Your task to perform on an android device: empty trash in google photos Image 0: 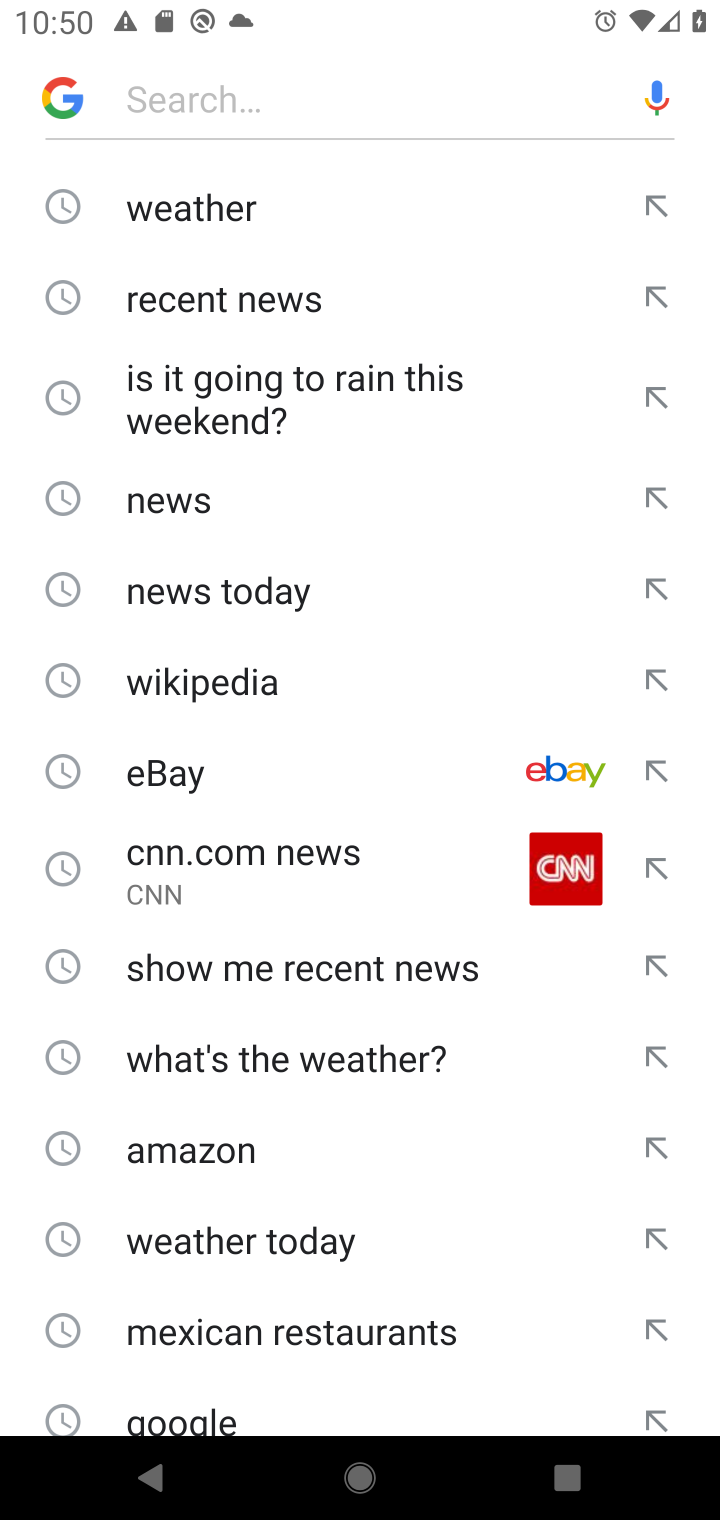
Step 0: press home button
Your task to perform on an android device: empty trash in google photos Image 1: 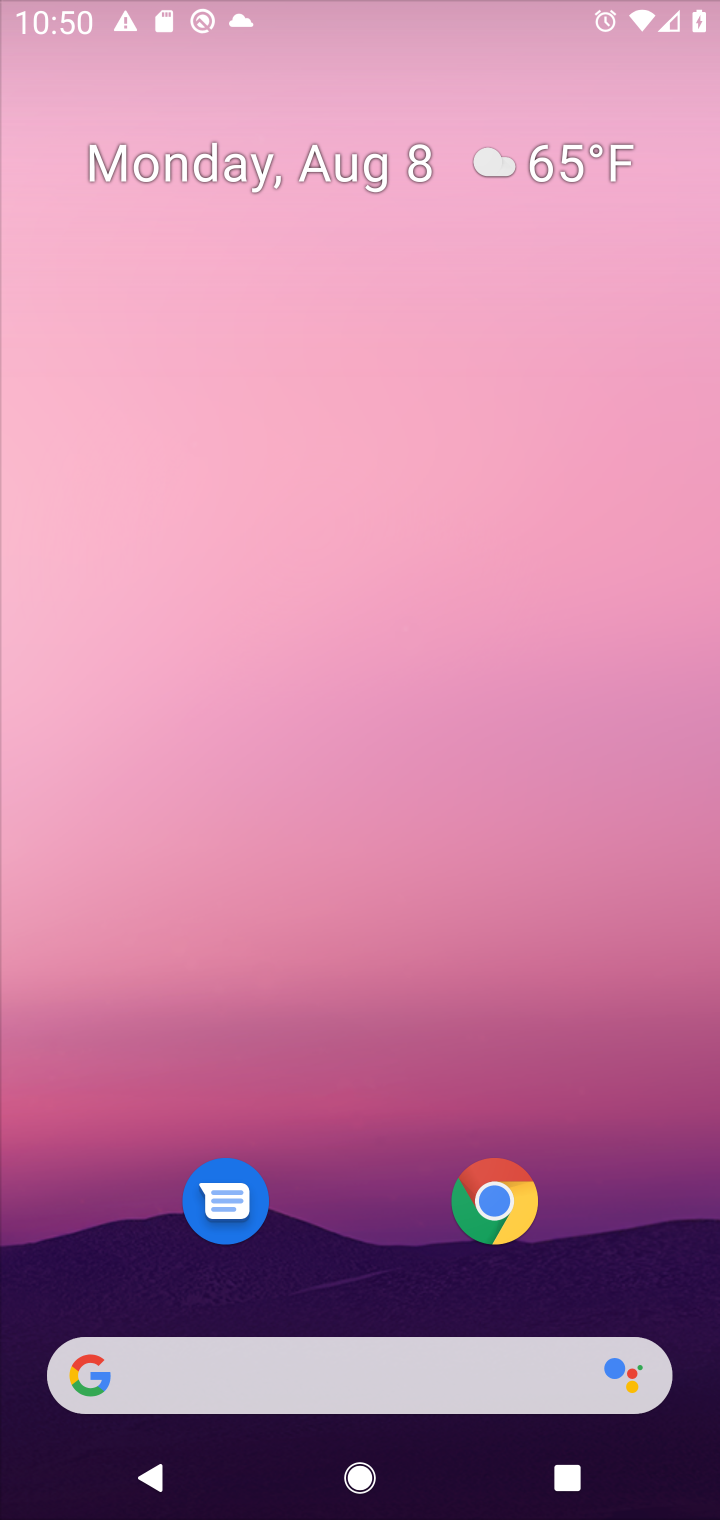
Step 1: press home button
Your task to perform on an android device: empty trash in google photos Image 2: 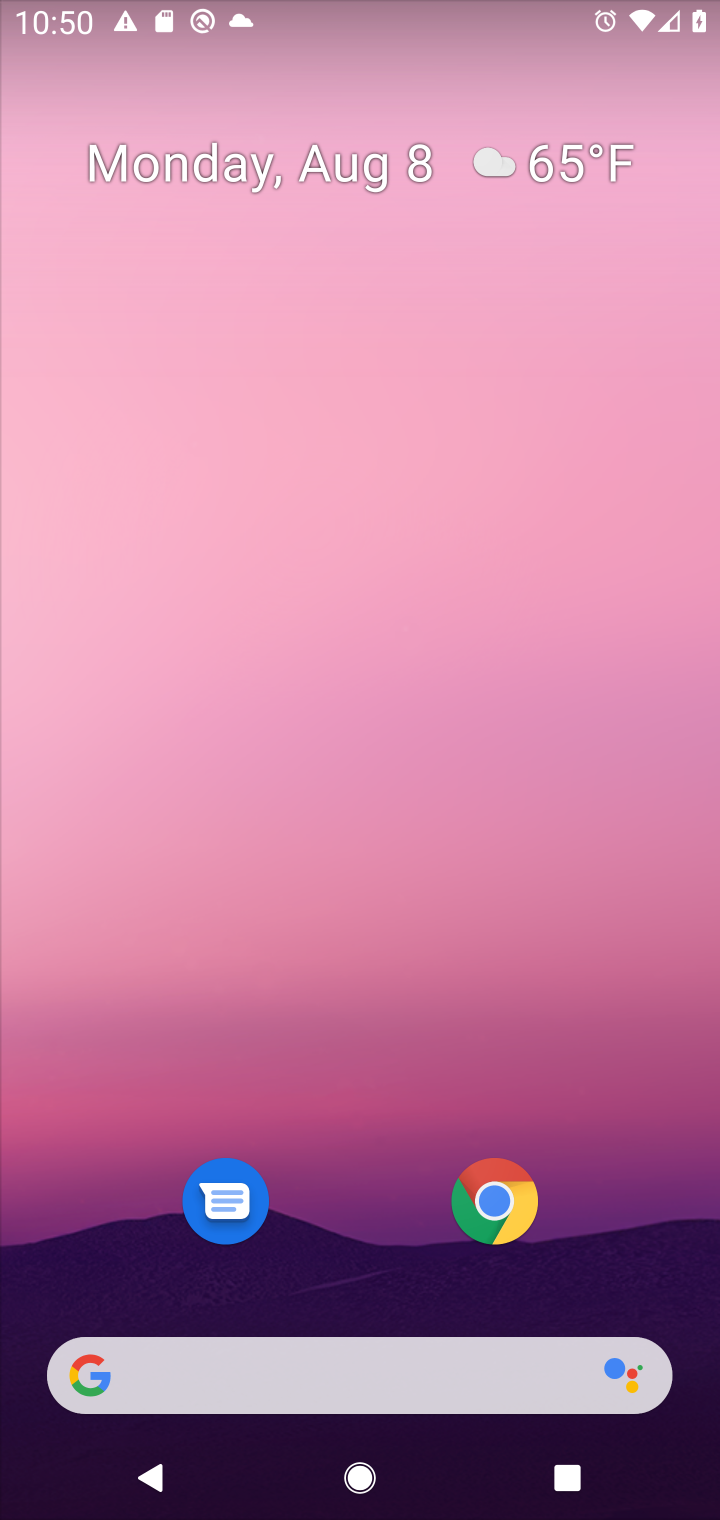
Step 2: drag from (403, 1143) to (438, 315)
Your task to perform on an android device: empty trash in google photos Image 3: 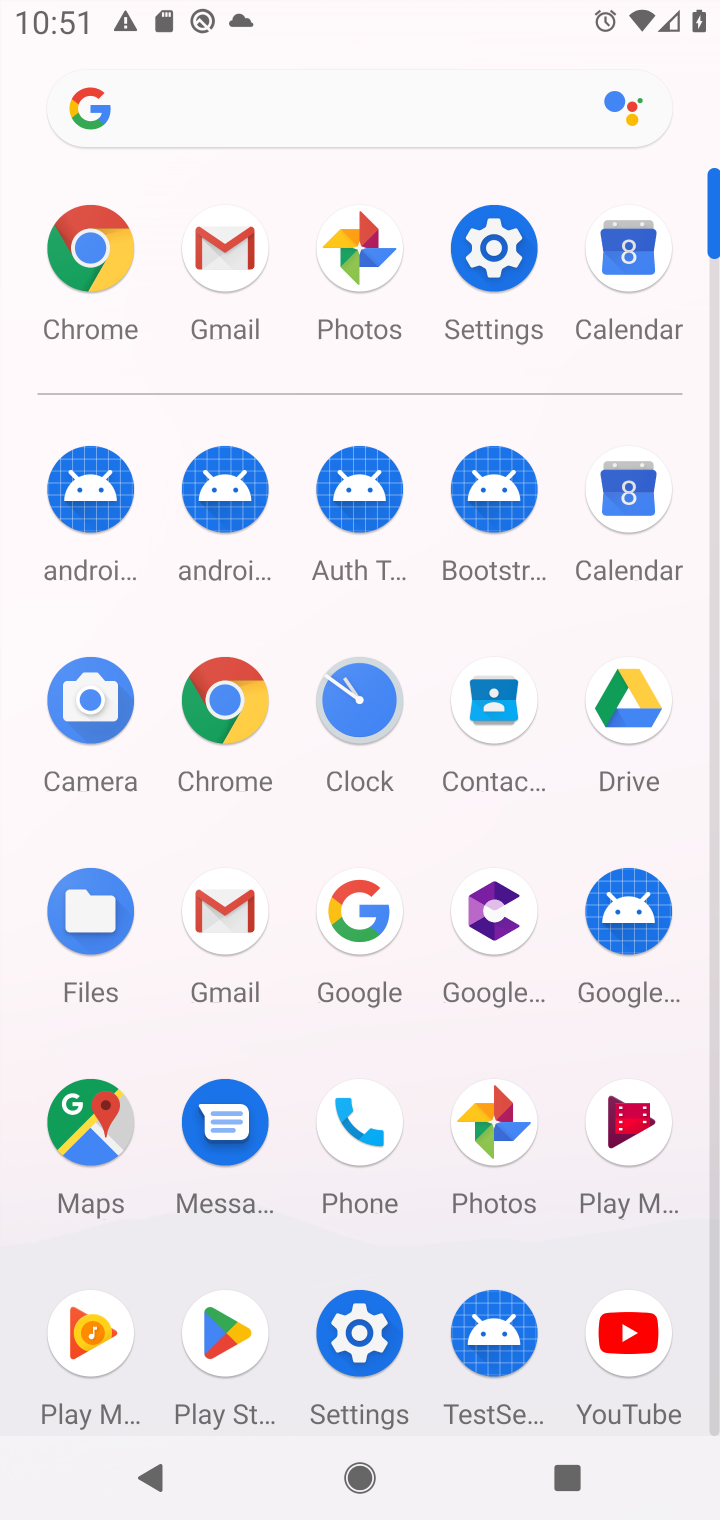
Step 3: click (485, 1130)
Your task to perform on an android device: empty trash in google photos Image 4: 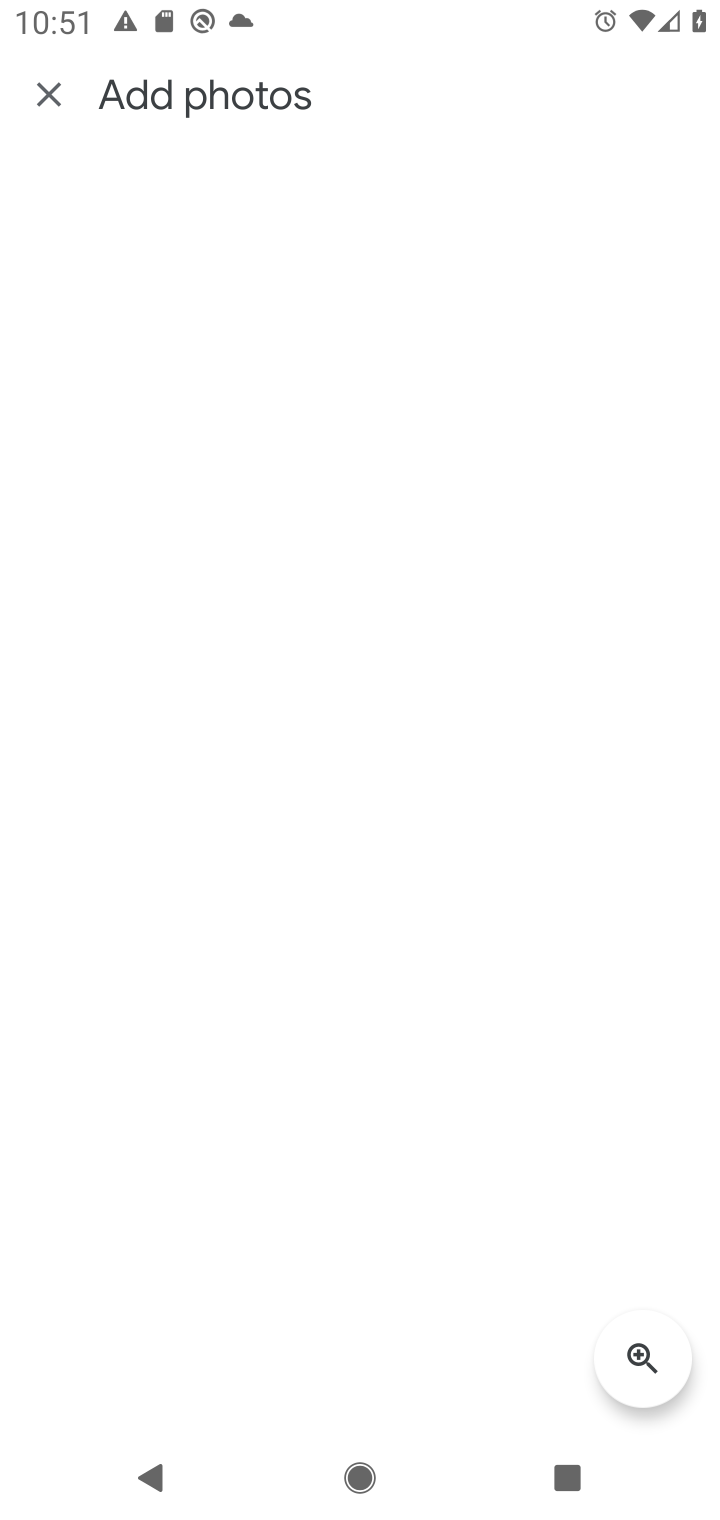
Step 4: press back button
Your task to perform on an android device: empty trash in google photos Image 5: 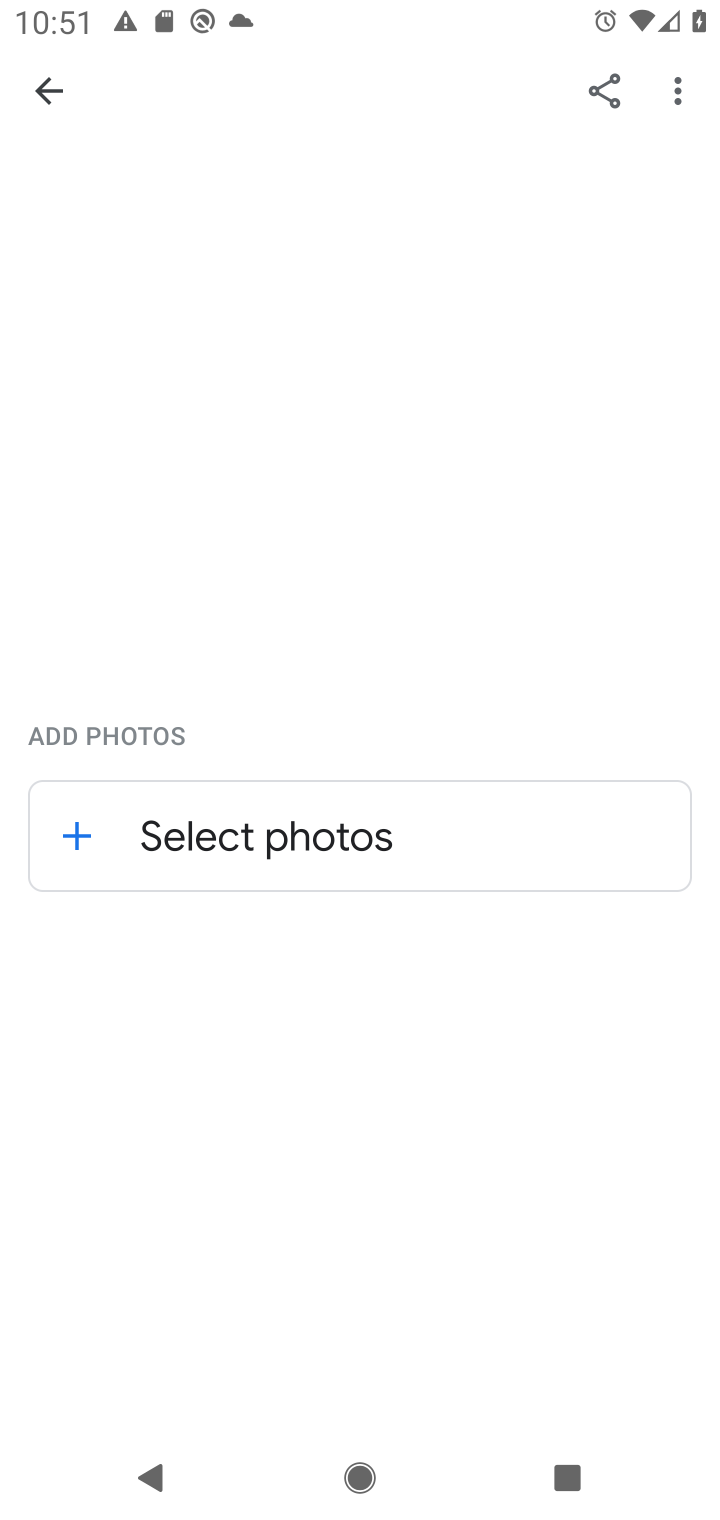
Step 5: press back button
Your task to perform on an android device: empty trash in google photos Image 6: 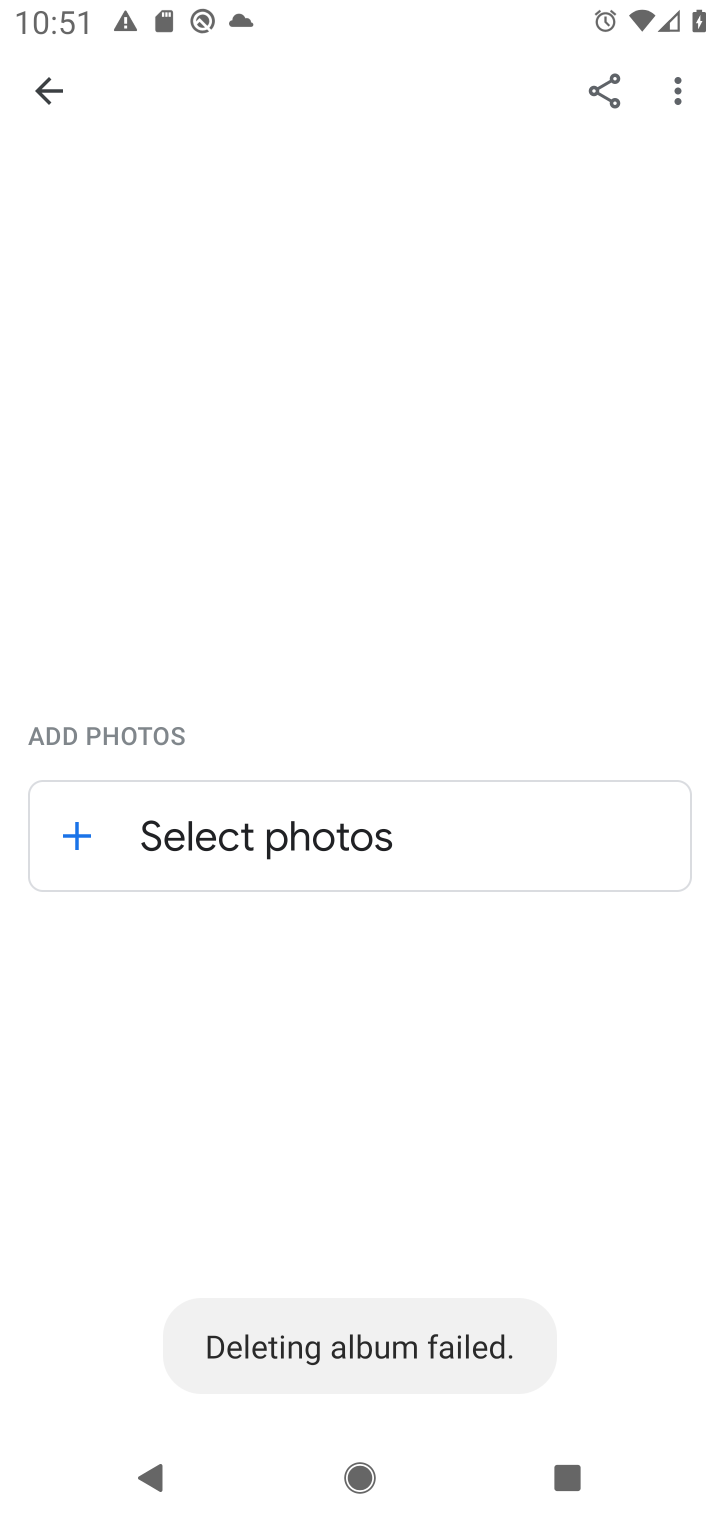
Step 6: press back button
Your task to perform on an android device: empty trash in google photos Image 7: 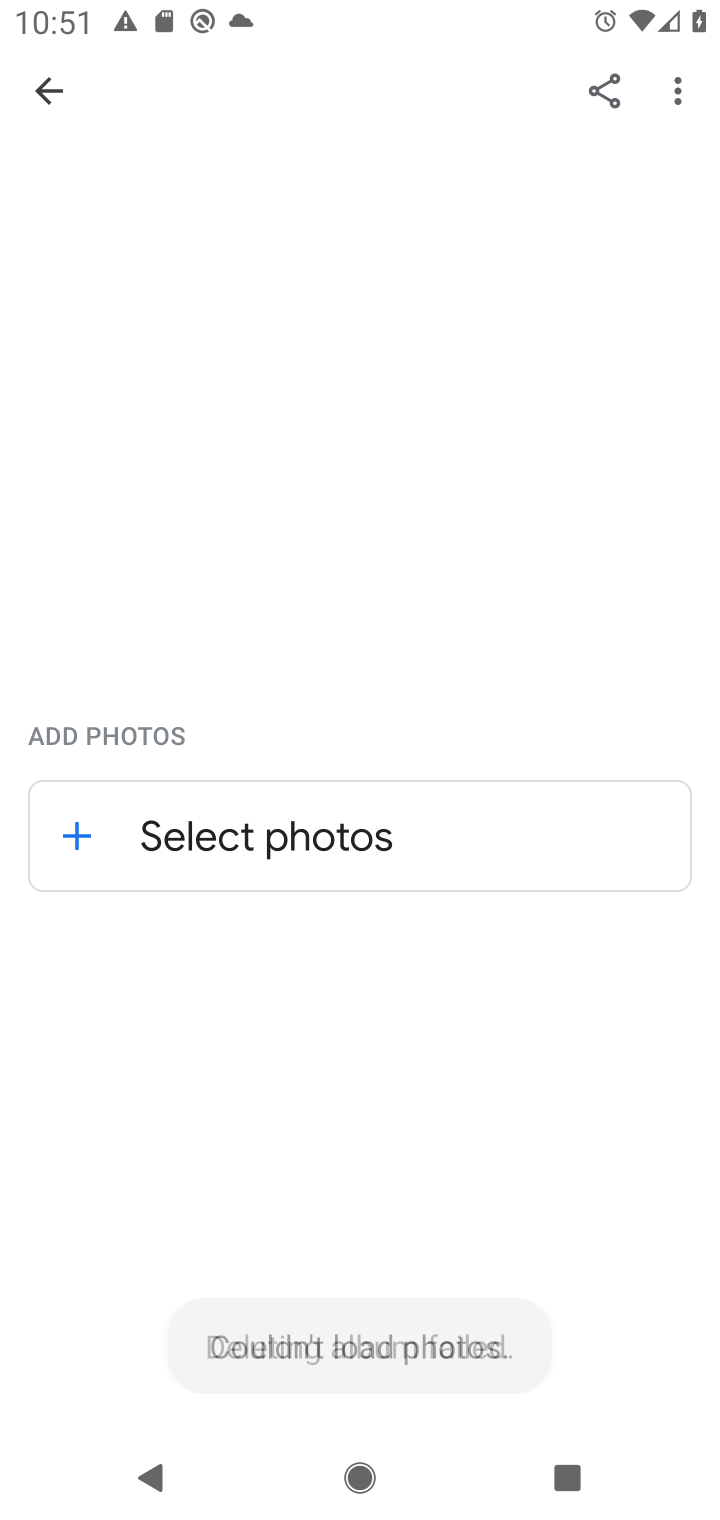
Step 7: press back button
Your task to perform on an android device: empty trash in google photos Image 8: 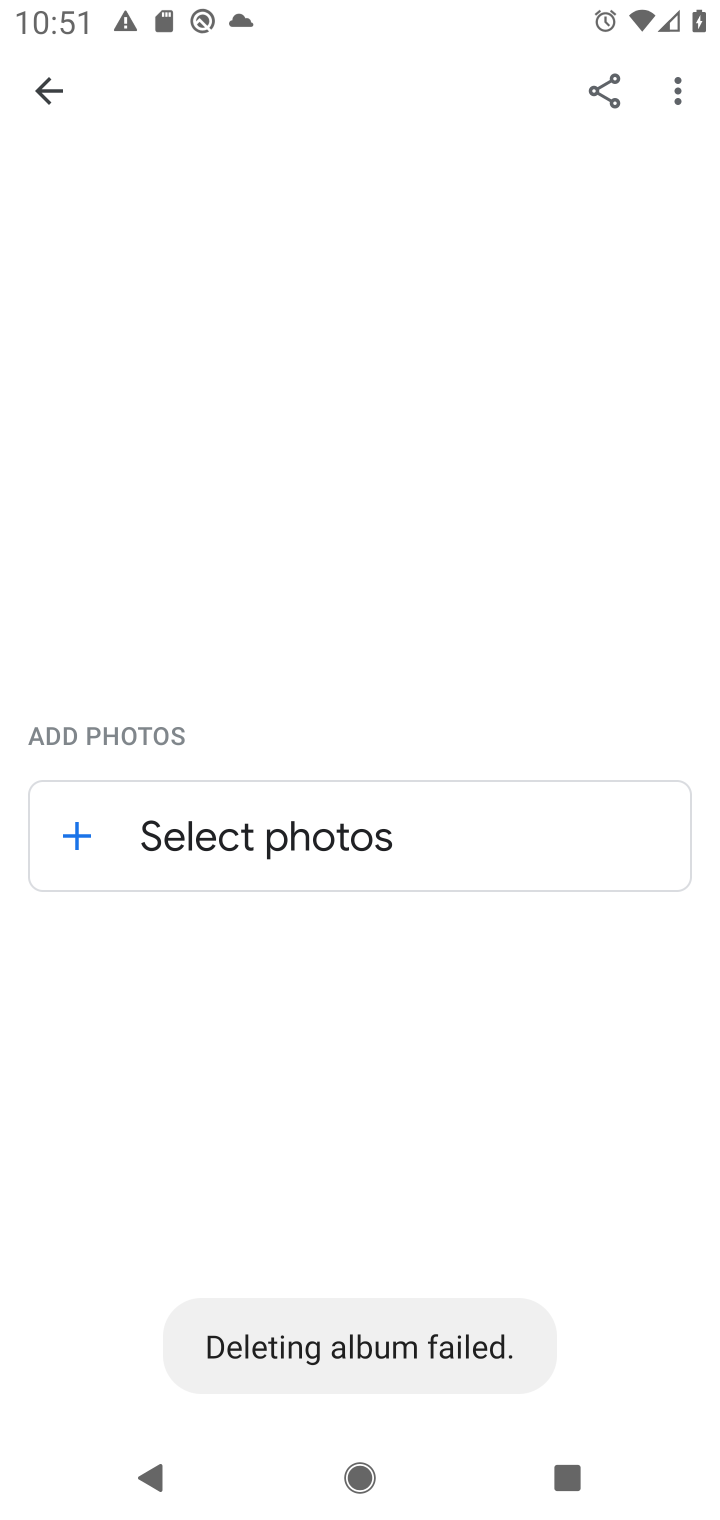
Step 8: press back button
Your task to perform on an android device: empty trash in google photos Image 9: 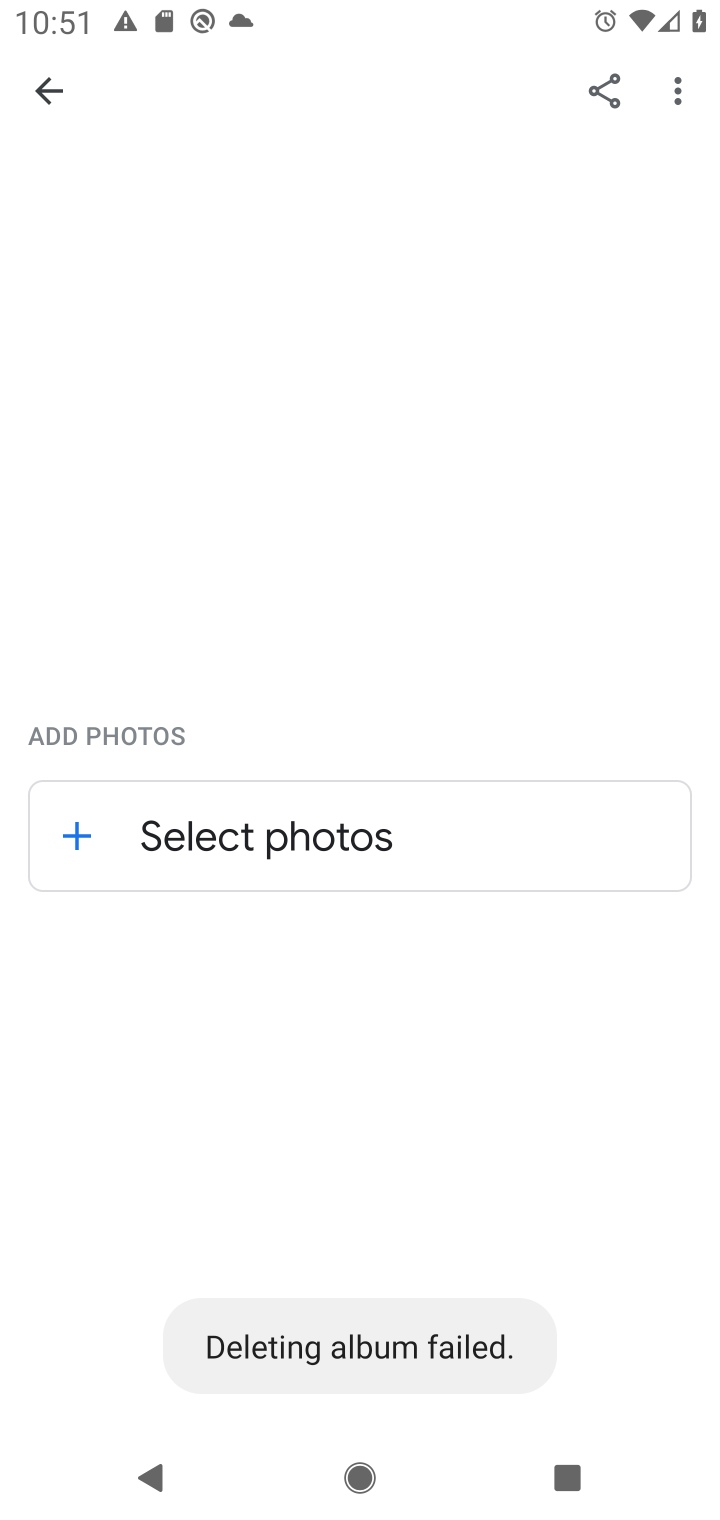
Step 9: click (47, 86)
Your task to perform on an android device: empty trash in google photos Image 10: 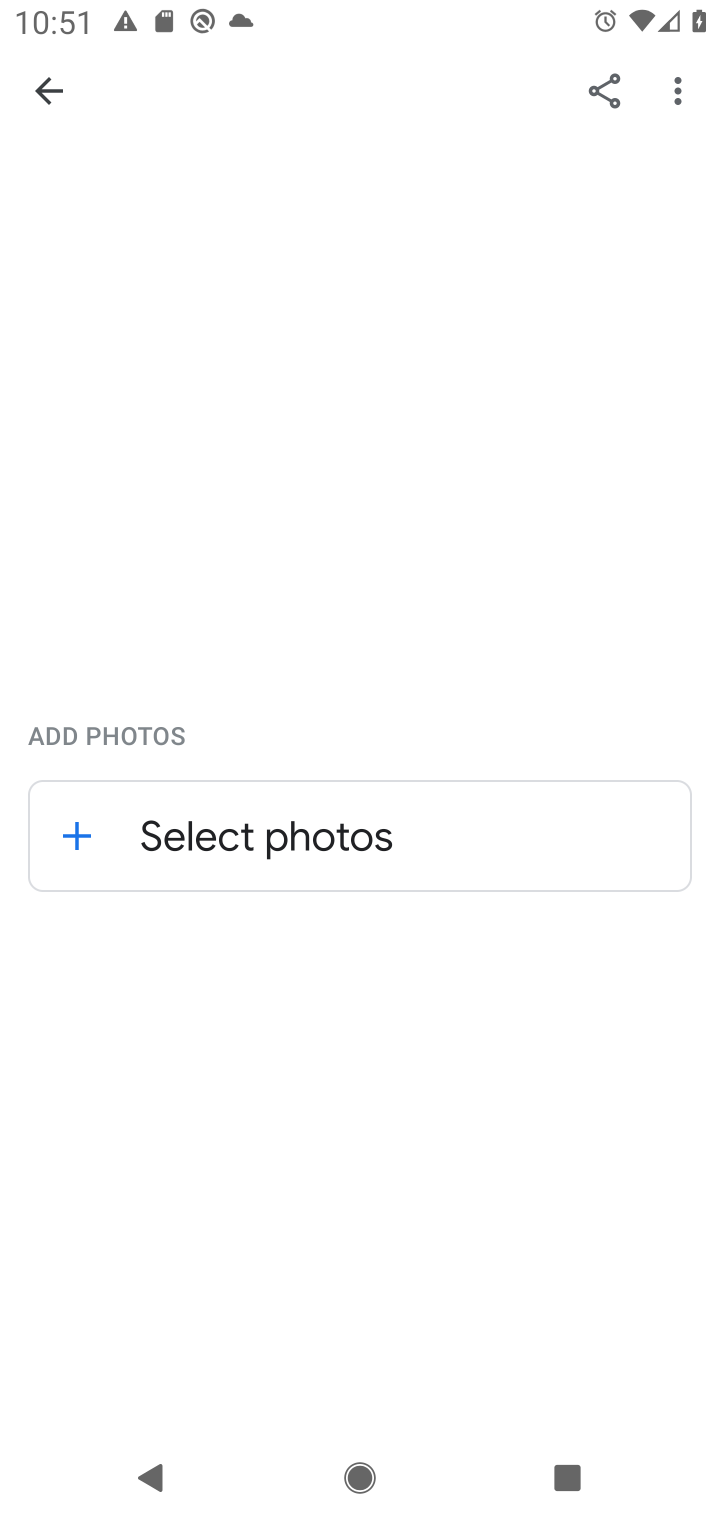
Step 10: task complete